Your task to perform on an android device: toggle javascript in the chrome app Image 0: 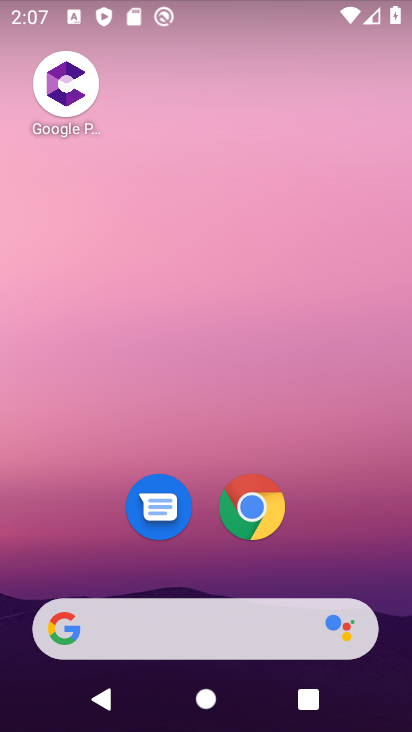
Step 0: drag from (264, 585) to (231, 206)
Your task to perform on an android device: toggle javascript in the chrome app Image 1: 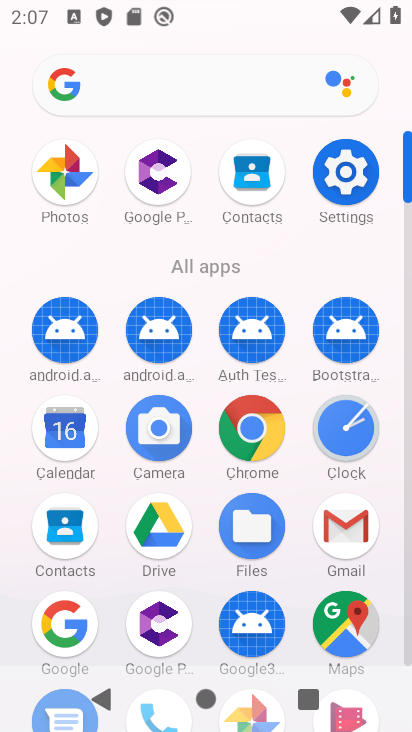
Step 1: click (267, 449)
Your task to perform on an android device: toggle javascript in the chrome app Image 2: 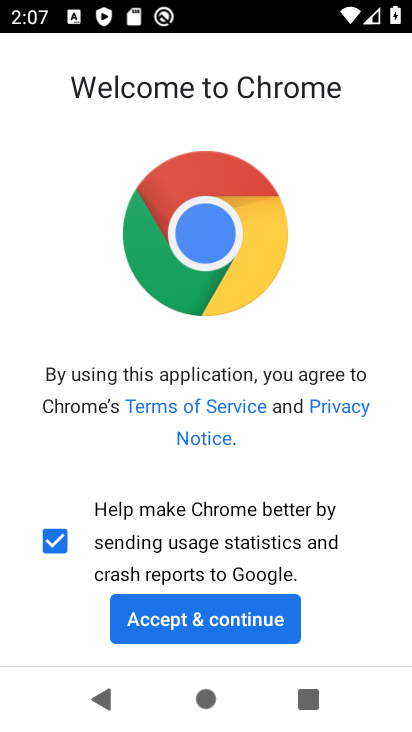
Step 2: click (182, 629)
Your task to perform on an android device: toggle javascript in the chrome app Image 3: 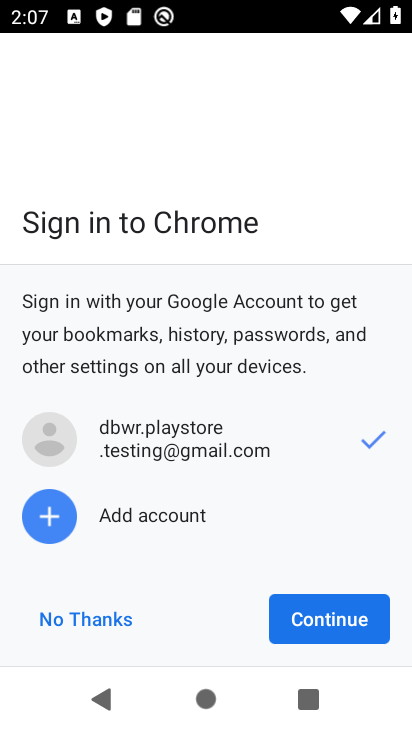
Step 3: click (288, 623)
Your task to perform on an android device: toggle javascript in the chrome app Image 4: 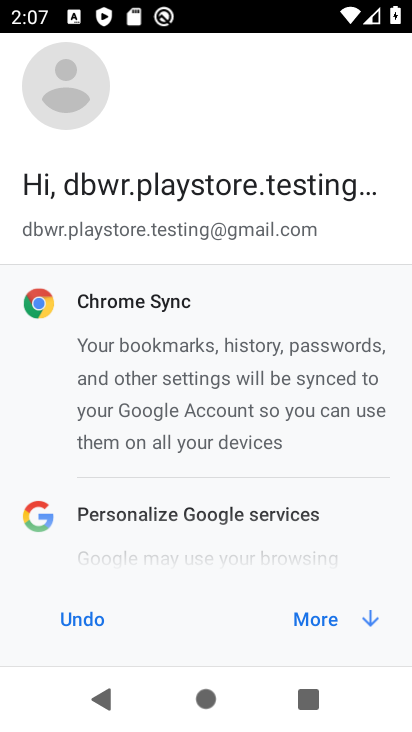
Step 4: click (292, 622)
Your task to perform on an android device: toggle javascript in the chrome app Image 5: 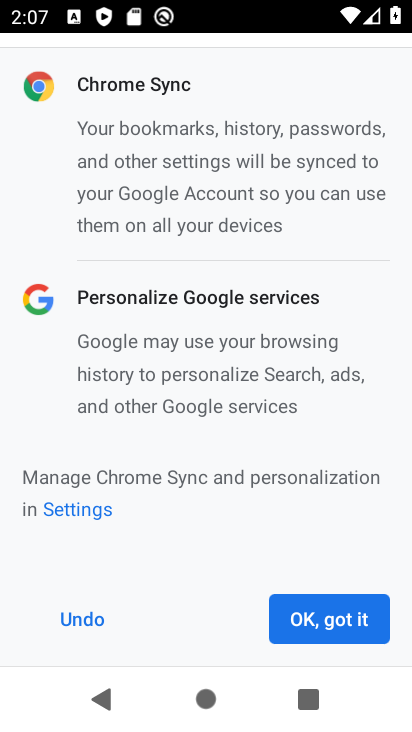
Step 5: click (292, 621)
Your task to perform on an android device: toggle javascript in the chrome app Image 6: 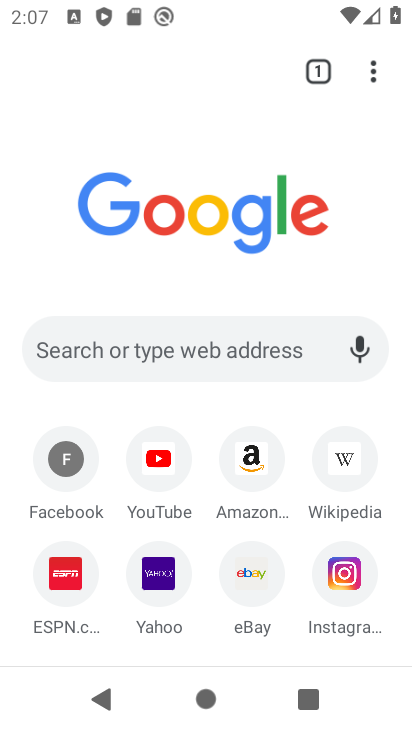
Step 6: click (370, 77)
Your task to perform on an android device: toggle javascript in the chrome app Image 7: 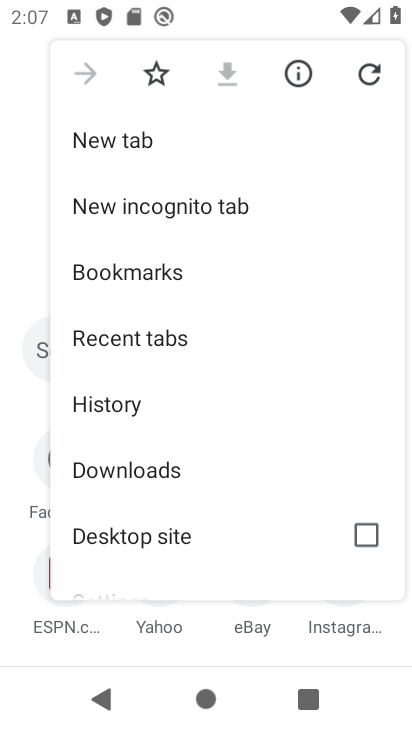
Step 7: drag from (187, 448) to (212, 168)
Your task to perform on an android device: toggle javascript in the chrome app Image 8: 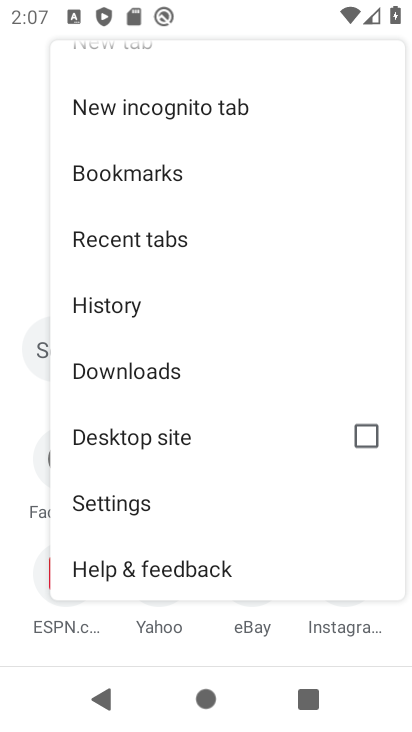
Step 8: click (180, 506)
Your task to perform on an android device: toggle javascript in the chrome app Image 9: 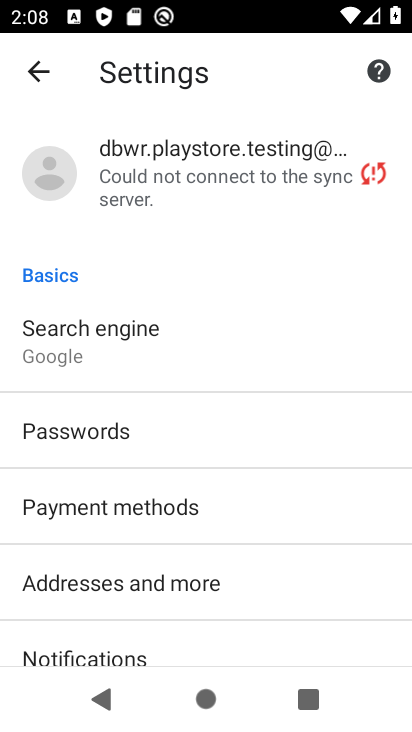
Step 9: drag from (180, 510) to (213, 219)
Your task to perform on an android device: toggle javascript in the chrome app Image 10: 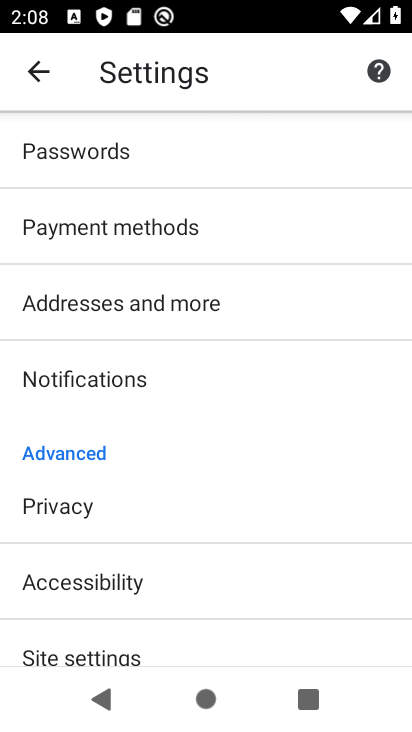
Step 10: drag from (183, 592) to (223, 228)
Your task to perform on an android device: toggle javascript in the chrome app Image 11: 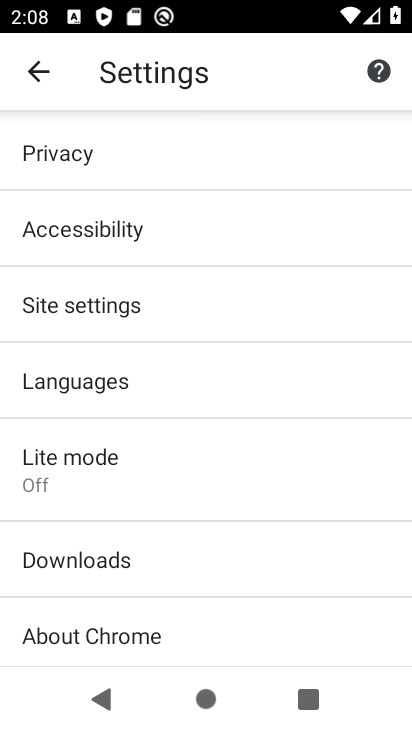
Step 11: click (140, 305)
Your task to perform on an android device: toggle javascript in the chrome app Image 12: 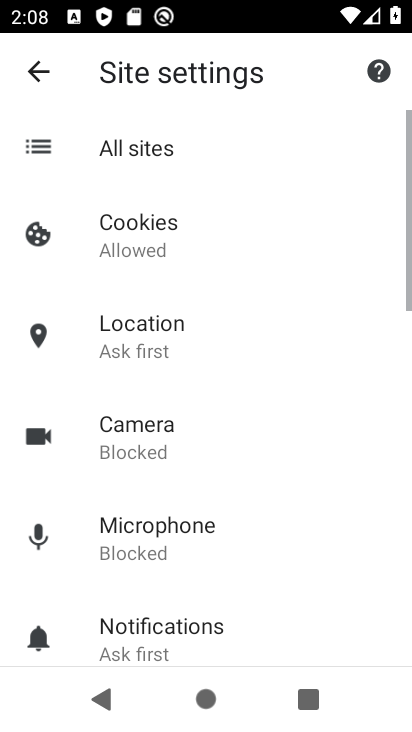
Step 12: drag from (183, 567) to (206, 166)
Your task to perform on an android device: toggle javascript in the chrome app Image 13: 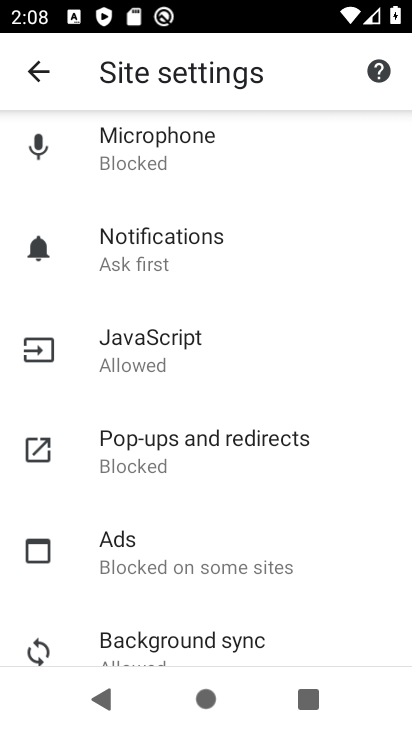
Step 13: click (195, 371)
Your task to perform on an android device: toggle javascript in the chrome app Image 14: 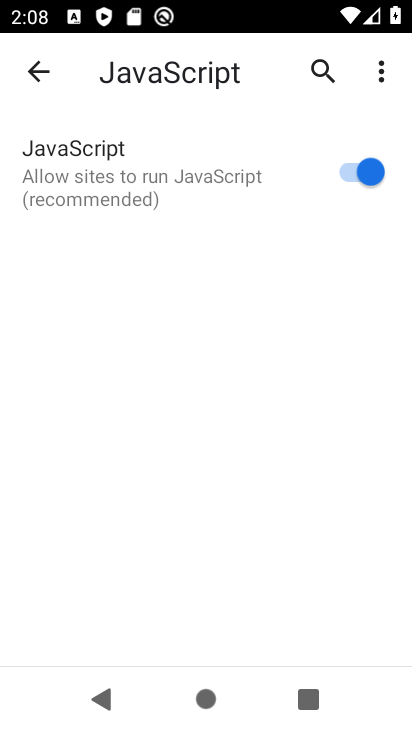
Step 14: click (358, 177)
Your task to perform on an android device: toggle javascript in the chrome app Image 15: 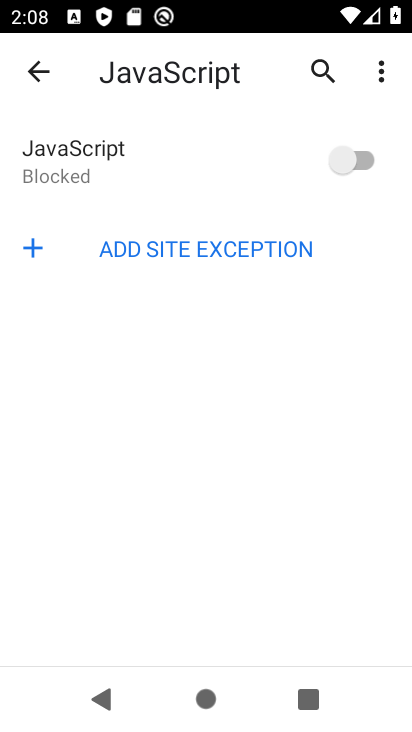
Step 15: task complete